Your task to perform on an android device: Open maps Image 0: 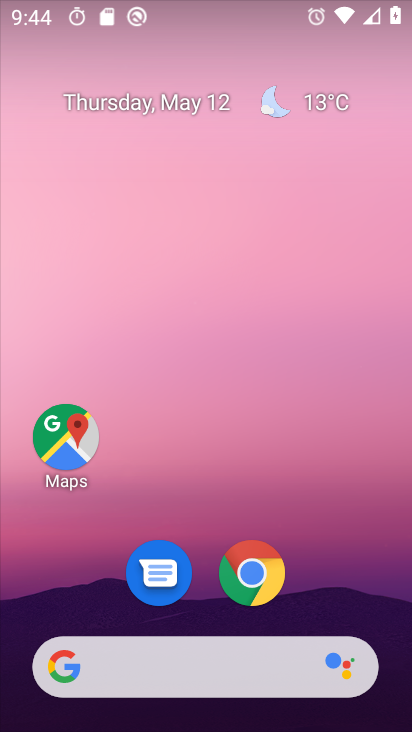
Step 0: click (63, 433)
Your task to perform on an android device: Open maps Image 1: 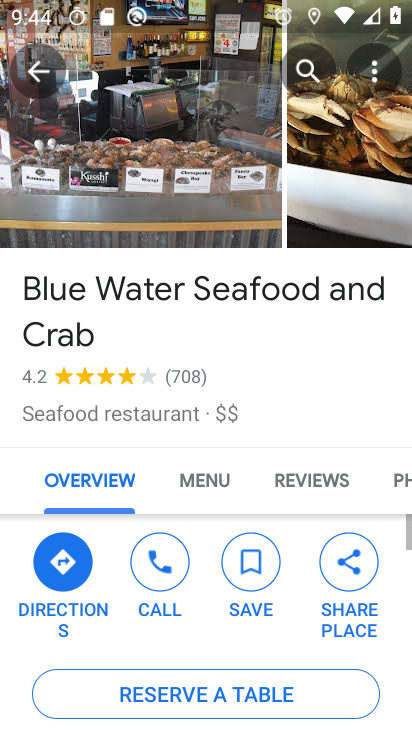
Step 1: task complete